Your task to perform on an android device: set default search engine in the chrome app Image 0: 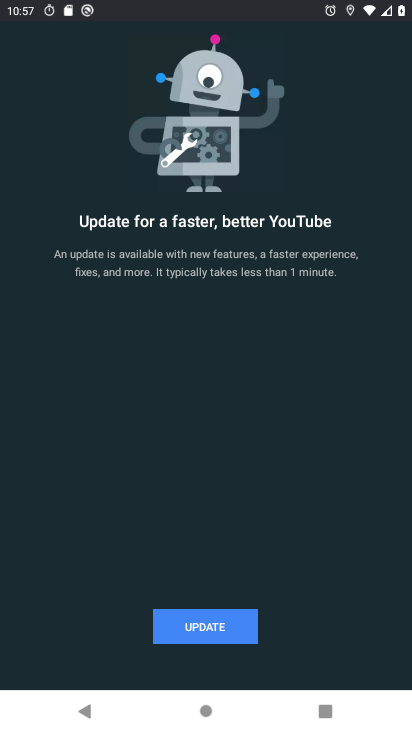
Step 0: press back button
Your task to perform on an android device: set default search engine in the chrome app Image 1: 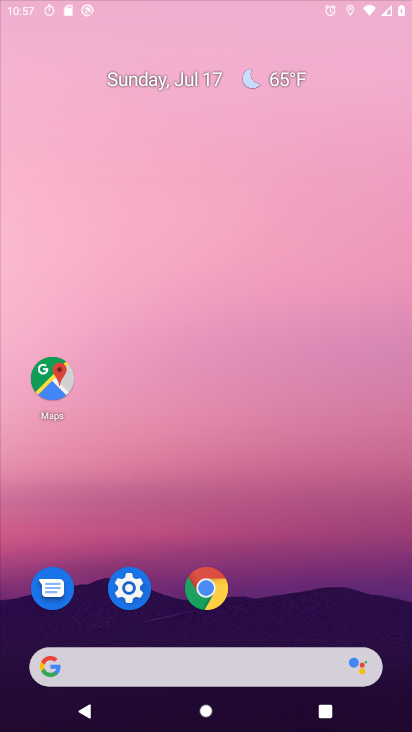
Step 1: drag from (285, 676) to (144, 87)
Your task to perform on an android device: set default search engine in the chrome app Image 2: 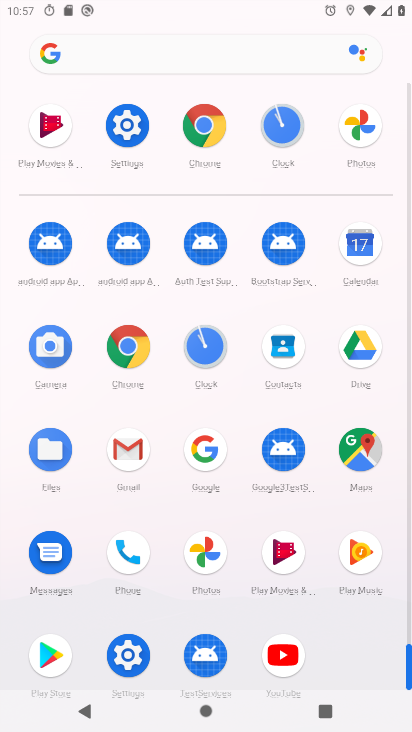
Step 2: click (202, 125)
Your task to perform on an android device: set default search engine in the chrome app Image 3: 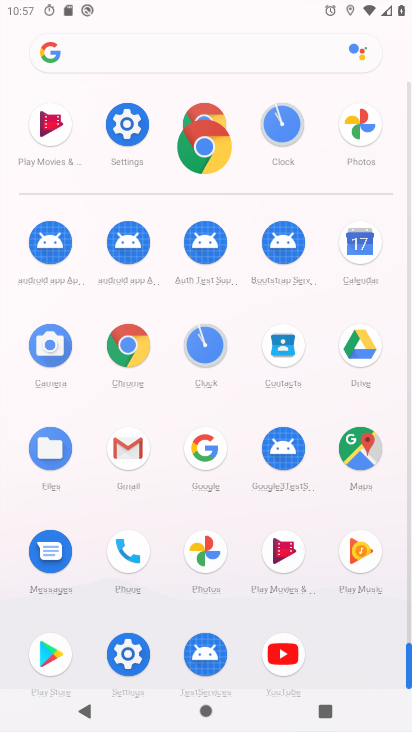
Step 3: click (202, 124)
Your task to perform on an android device: set default search engine in the chrome app Image 4: 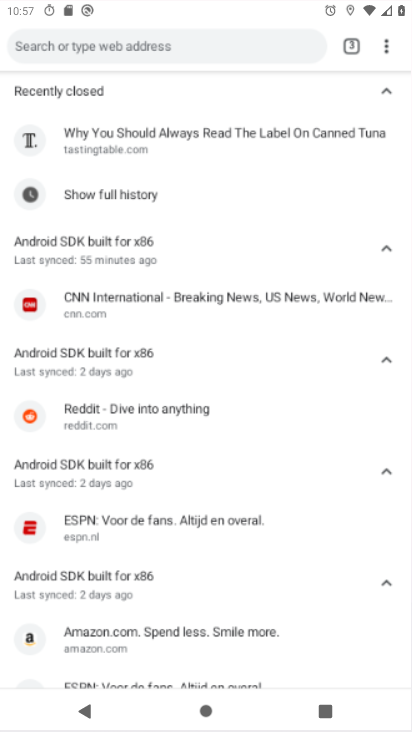
Step 4: click (202, 124)
Your task to perform on an android device: set default search engine in the chrome app Image 5: 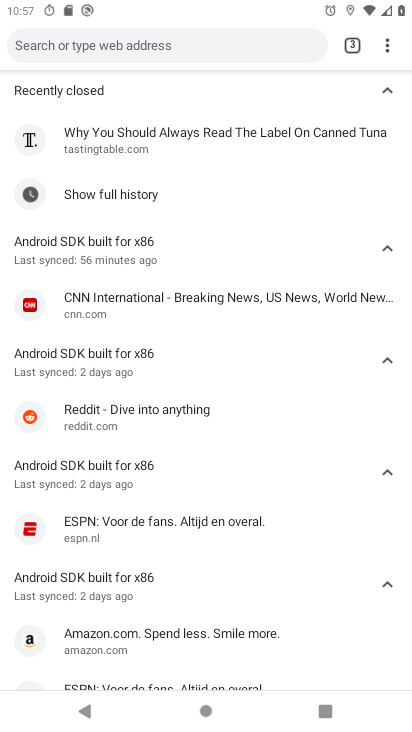
Step 5: drag from (386, 46) to (221, 374)
Your task to perform on an android device: set default search engine in the chrome app Image 6: 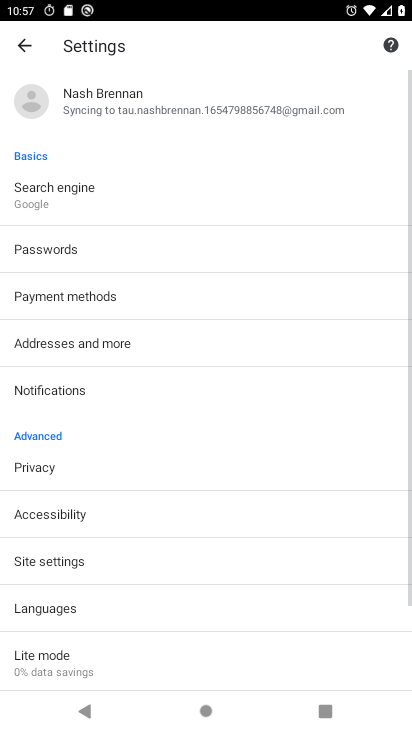
Step 6: click (32, 194)
Your task to perform on an android device: set default search engine in the chrome app Image 7: 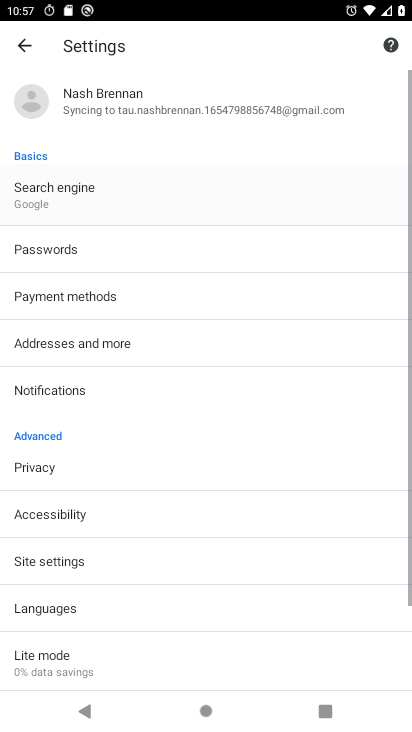
Step 7: click (36, 190)
Your task to perform on an android device: set default search engine in the chrome app Image 8: 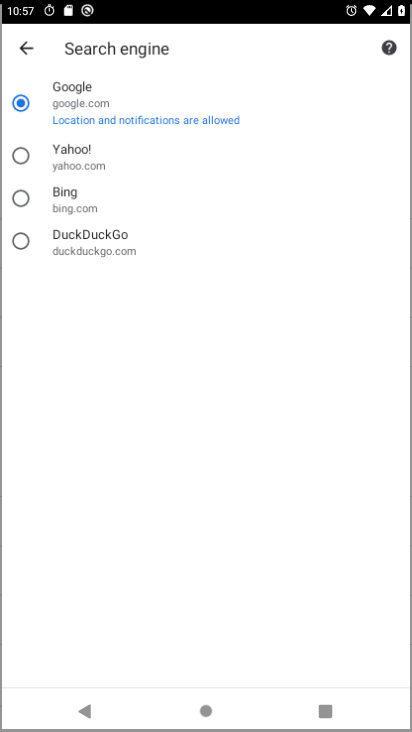
Step 8: click (36, 190)
Your task to perform on an android device: set default search engine in the chrome app Image 9: 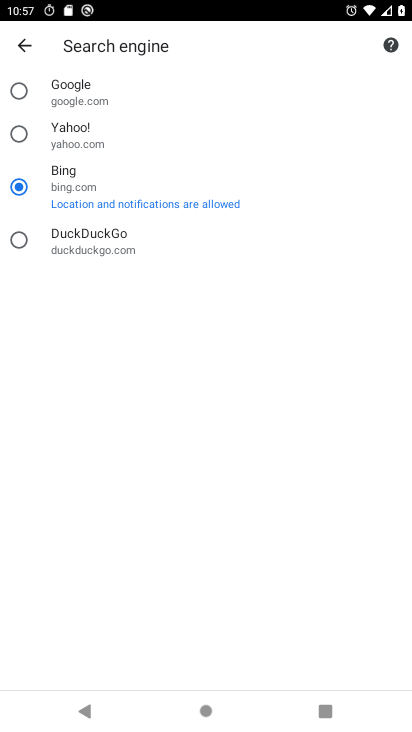
Step 9: click (9, 91)
Your task to perform on an android device: set default search engine in the chrome app Image 10: 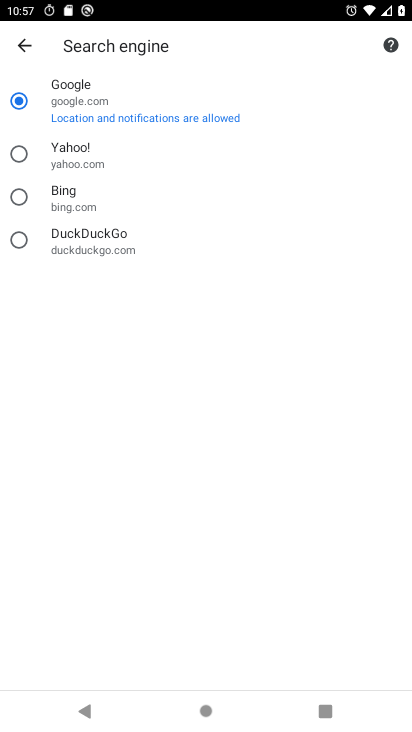
Step 10: task complete